Your task to perform on an android device: Open the Play Movies app and select the watchlist tab. Image 0: 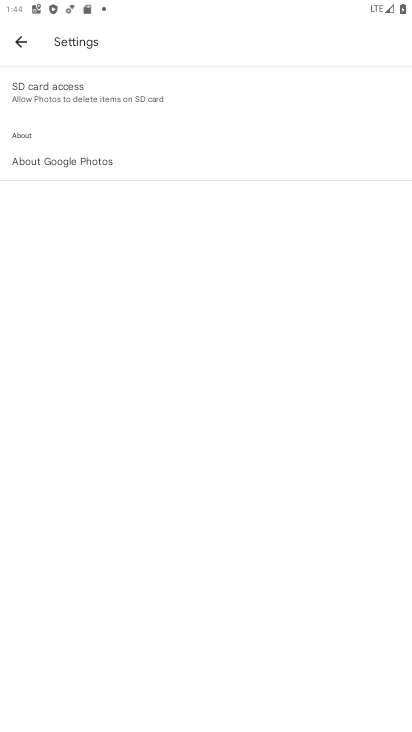
Step 0: press home button
Your task to perform on an android device: Open the Play Movies app and select the watchlist tab. Image 1: 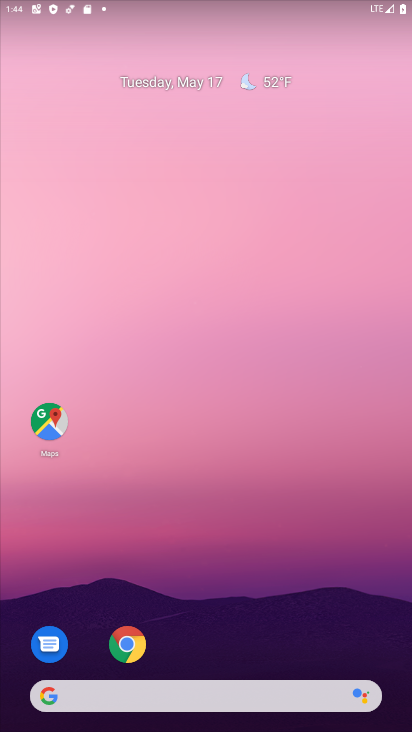
Step 1: drag from (223, 700) to (218, 212)
Your task to perform on an android device: Open the Play Movies app and select the watchlist tab. Image 2: 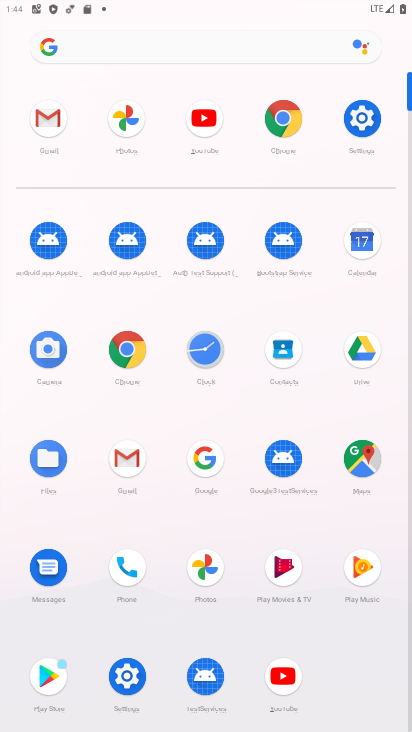
Step 2: click (292, 562)
Your task to perform on an android device: Open the Play Movies app and select the watchlist tab. Image 3: 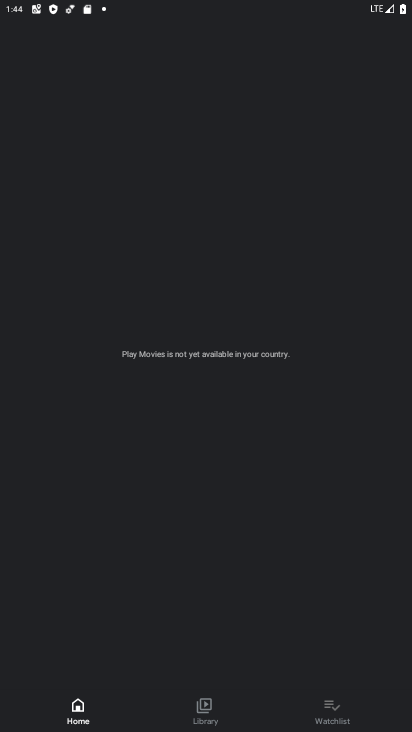
Step 3: click (346, 708)
Your task to perform on an android device: Open the Play Movies app and select the watchlist tab. Image 4: 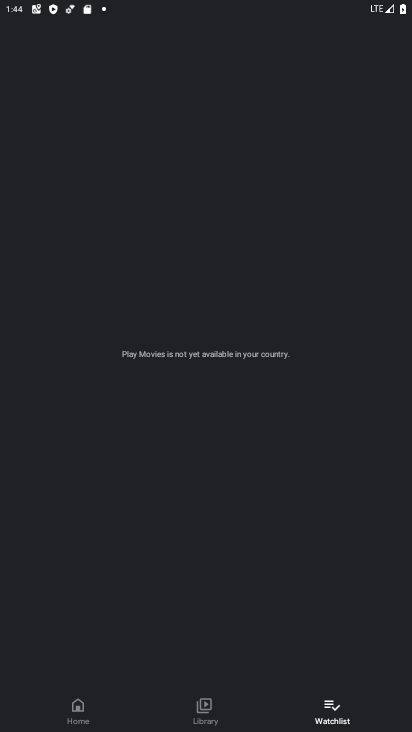
Step 4: task complete